Your task to perform on an android device: Go to Maps Image 0: 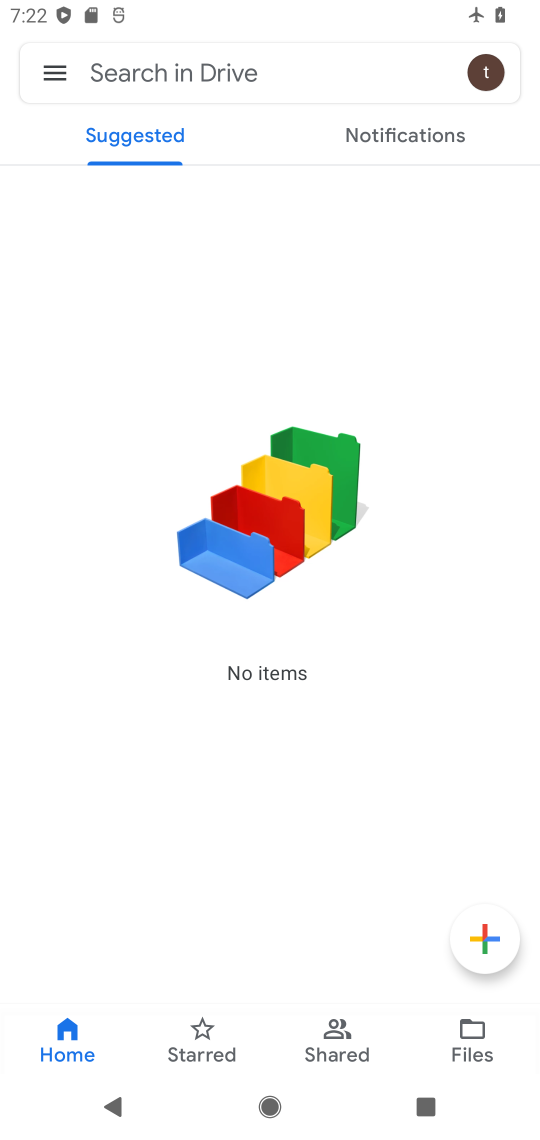
Step 0: press home button
Your task to perform on an android device: Go to Maps Image 1: 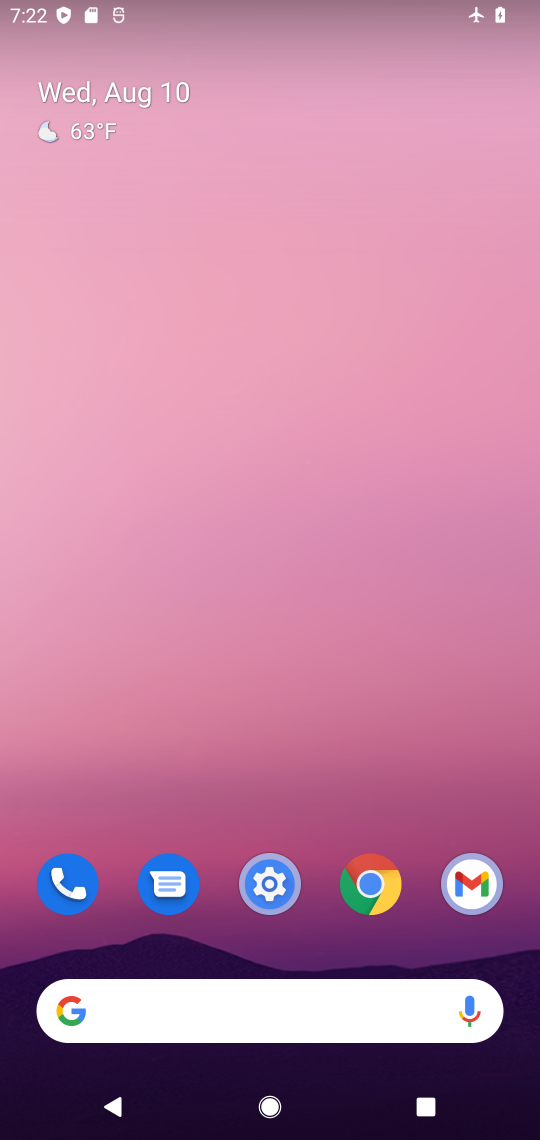
Step 1: drag from (321, 929) to (295, 295)
Your task to perform on an android device: Go to Maps Image 2: 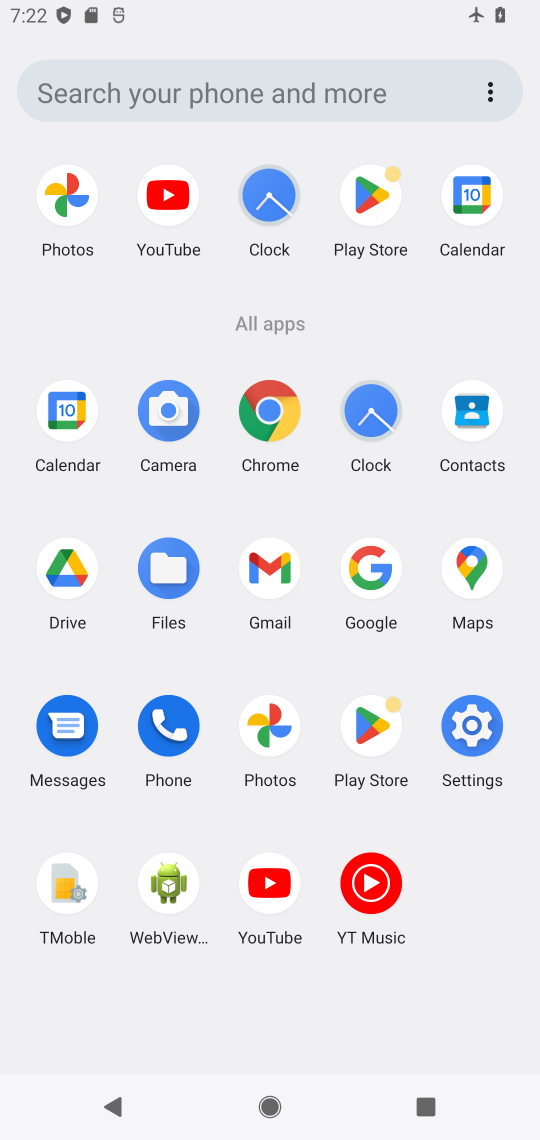
Step 2: click (471, 558)
Your task to perform on an android device: Go to Maps Image 3: 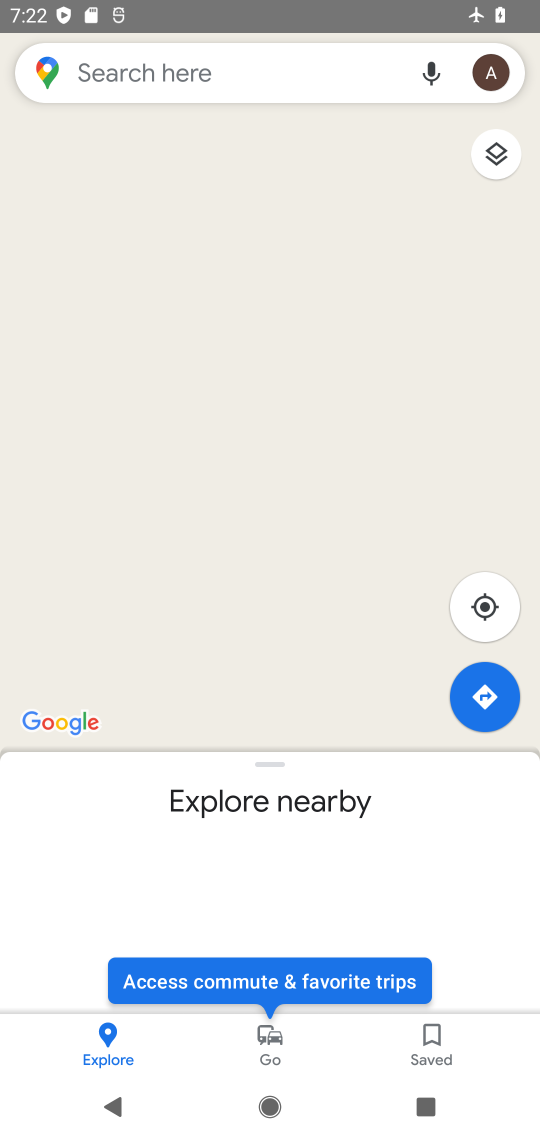
Step 3: task complete